Your task to perform on an android device: toggle wifi Image 0: 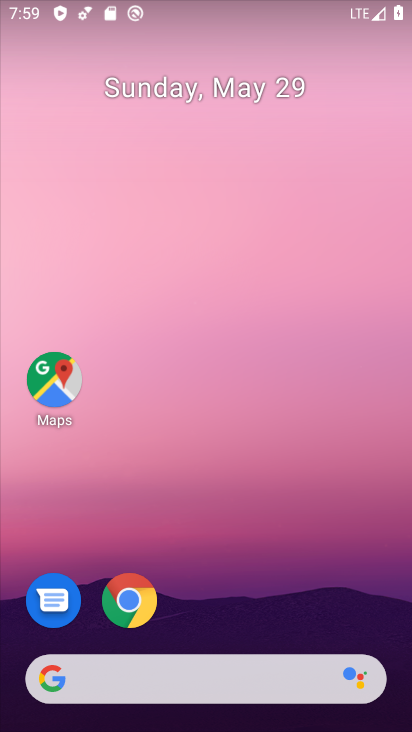
Step 0: drag from (312, 577) to (311, 139)
Your task to perform on an android device: toggle wifi Image 1: 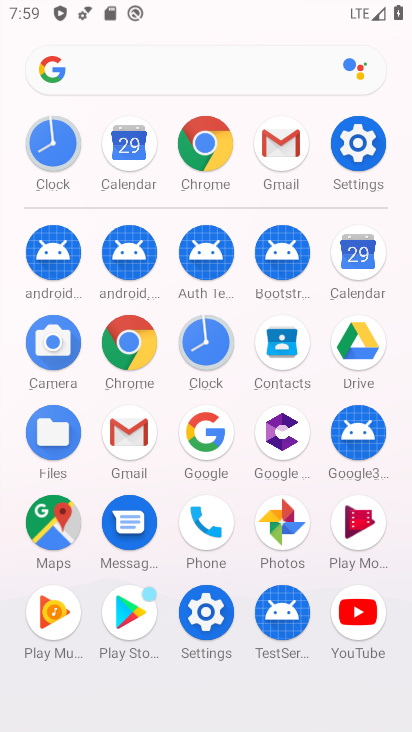
Step 1: click (217, 611)
Your task to perform on an android device: toggle wifi Image 2: 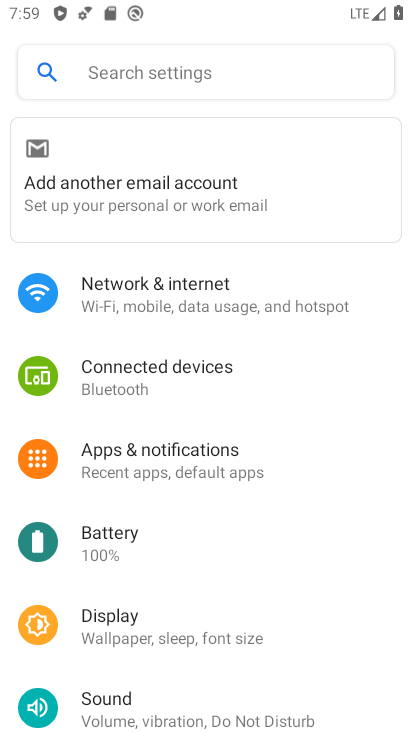
Step 2: click (239, 289)
Your task to perform on an android device: toggle wifi Image 3: 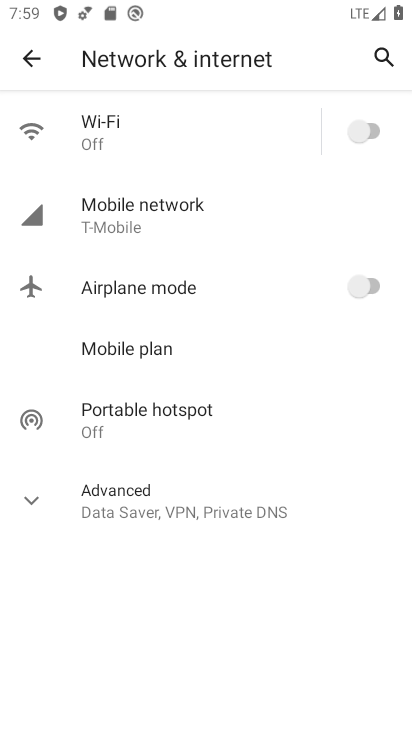
Step 3: click (374, 126)
Your task to perform on an android device: toggle wifi Image 4: 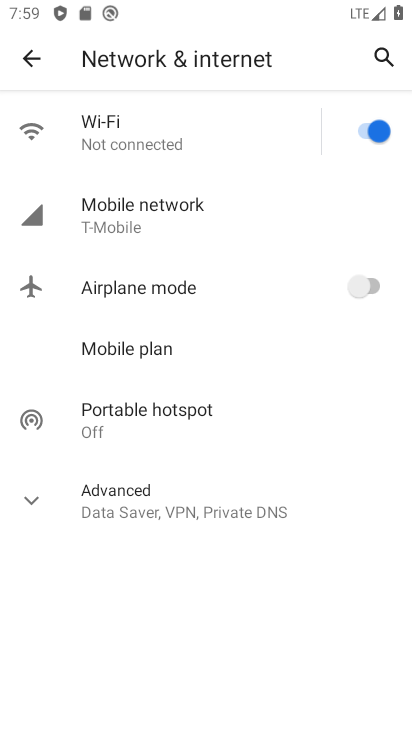
Step 4: task complete